Your task to perform on an android device: turn off improve location accuracy Image 0: 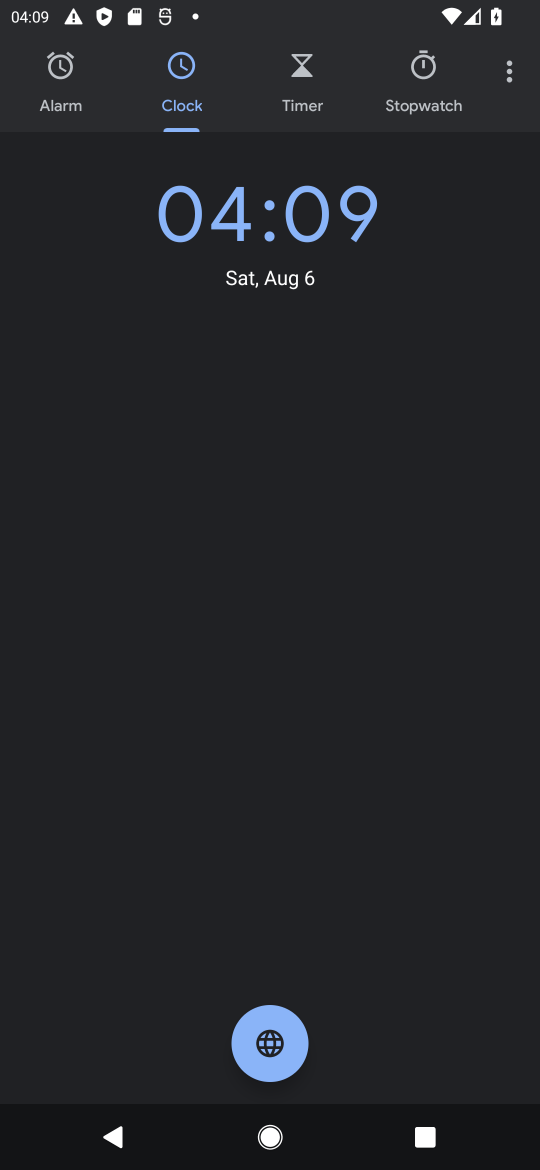
Step 0: press home button
Your task to perform on an android device: turn off improve location accuracy Image 1: 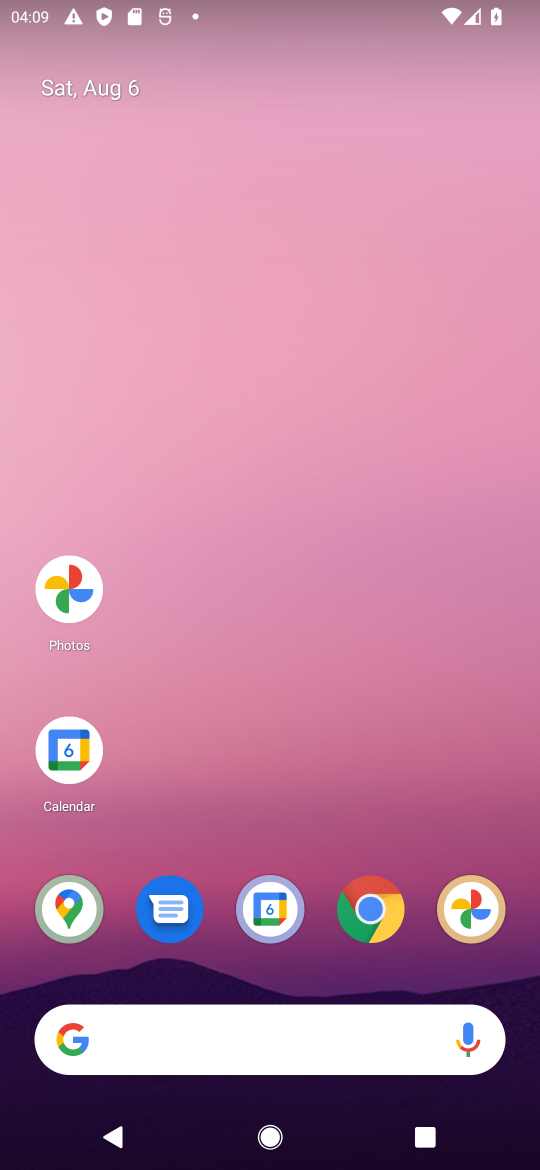
Step 1: drag from (223, 812) to (223, 8)
Your task to perform on an android device: turn off improve location accuracy Image 2: 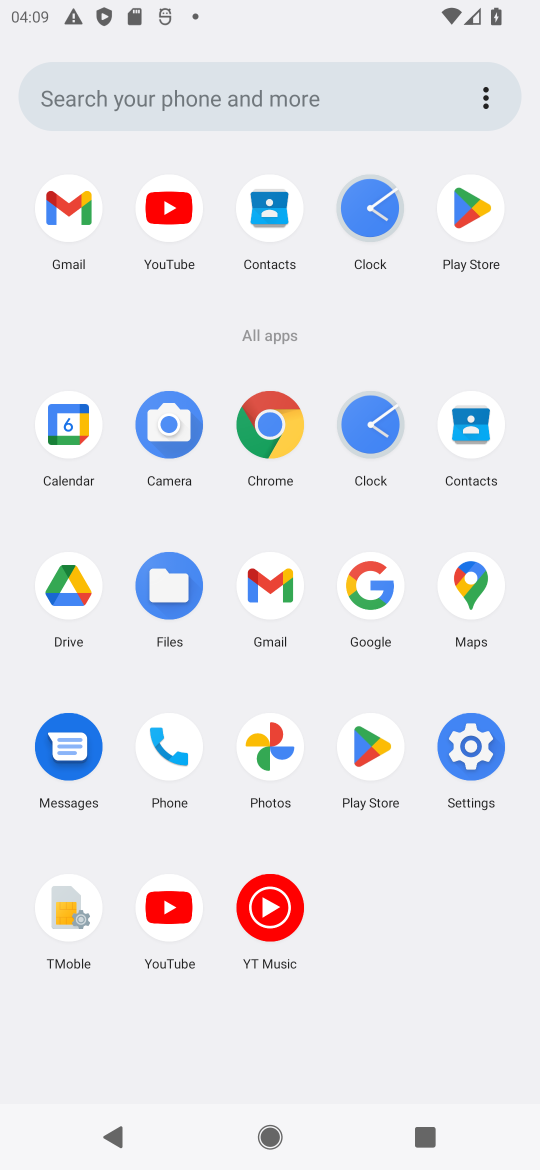
Step 2: click (470, 749)
Your task to perform on an android device: turn off improve location accuracy Image 3: 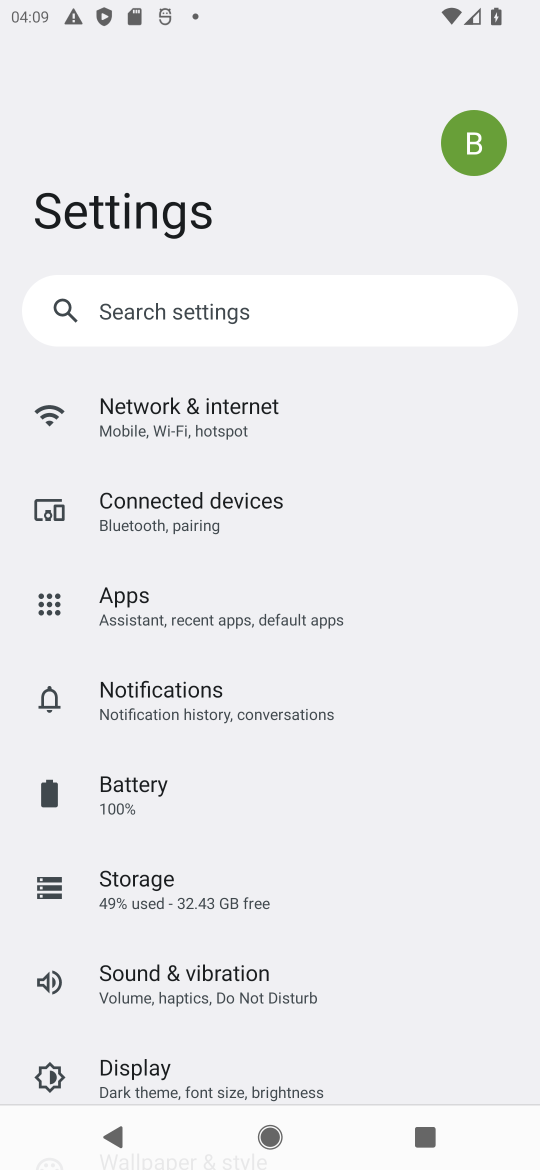
Step 3: drag from (388, 973) to (329, 397)
Your task to perform on an android device: turn off improve location accuracy Image 4: 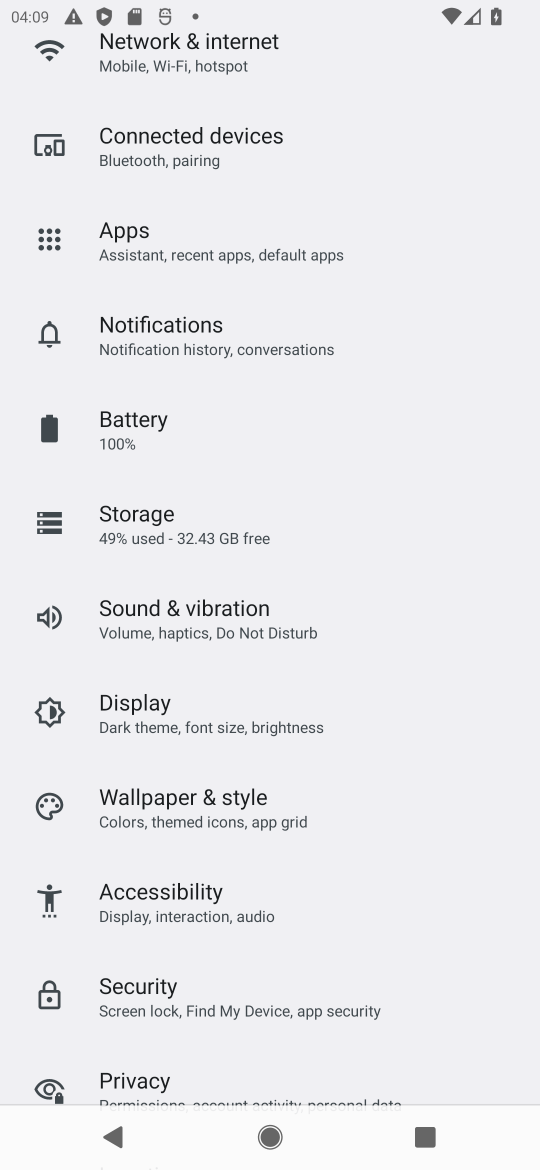
Step 4: drag from (405, 965) to (390, 432)
Your task to perform on an android device: turn off improve location accuracy Image 5: 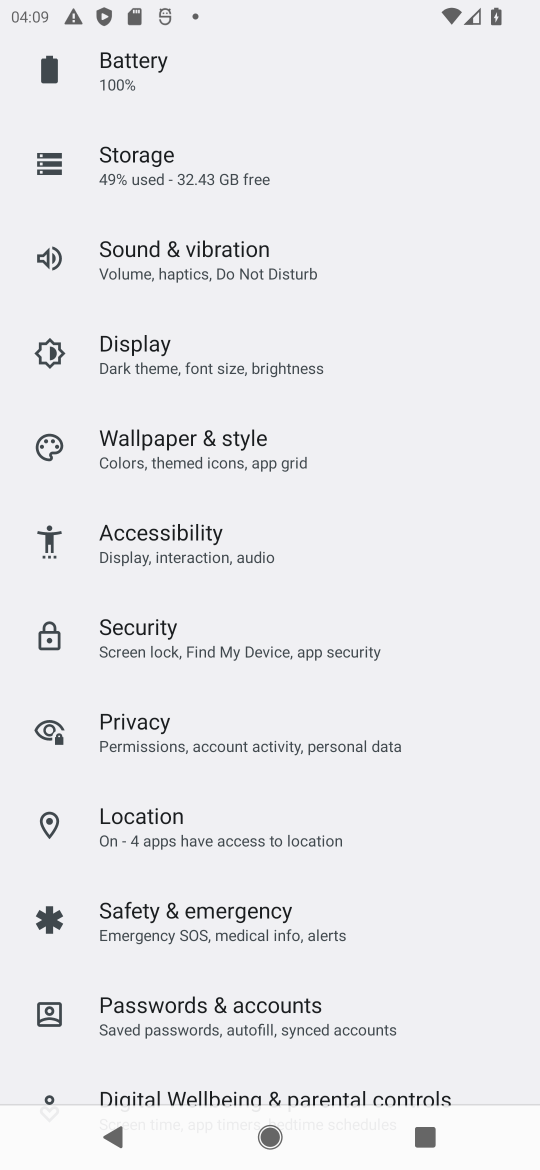
Step 5: click (163, 819)
Your task to perform on an android device: turn off improve location accuracy Image 6: 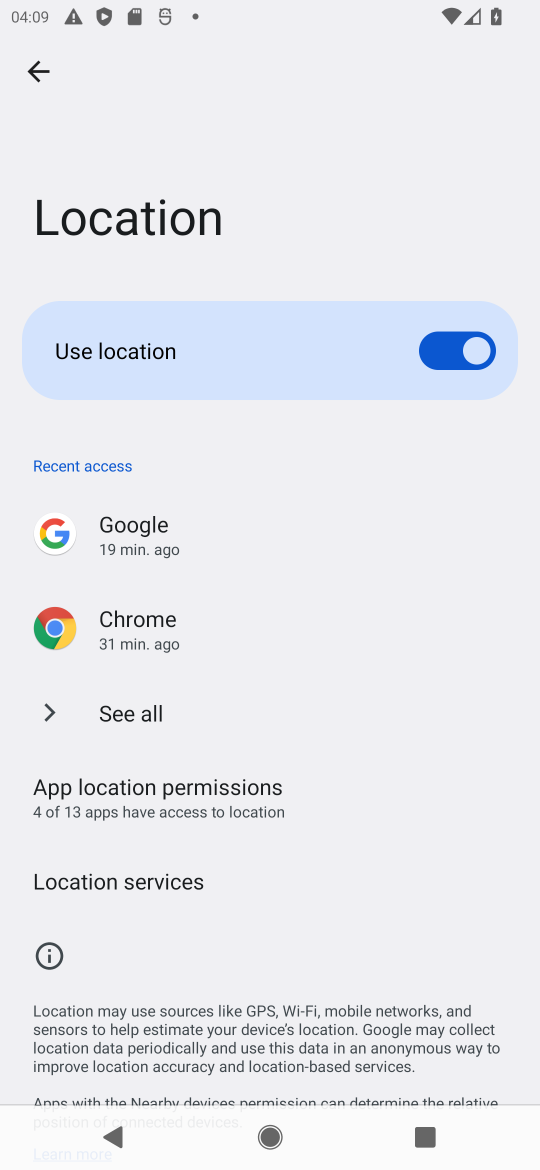
Step 6: click (130, 798)
Your task to perform on an android device: turn off improve location accuracy Image 7: 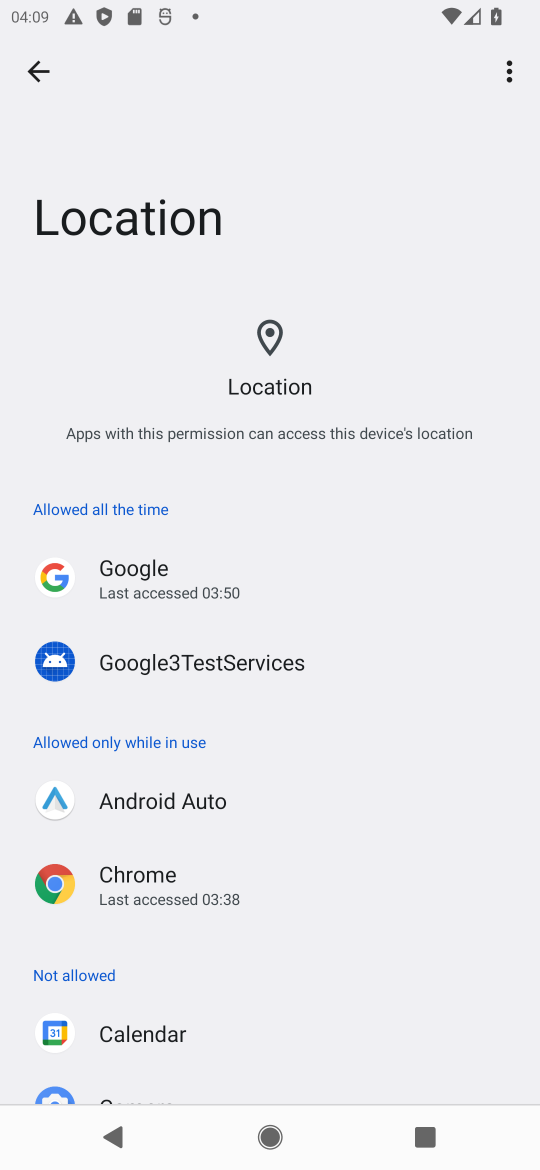
Step 7: drag from (421, 935) to (345, 382)
Your task to perform on an android device: turn off improve location accuracy Image 8: 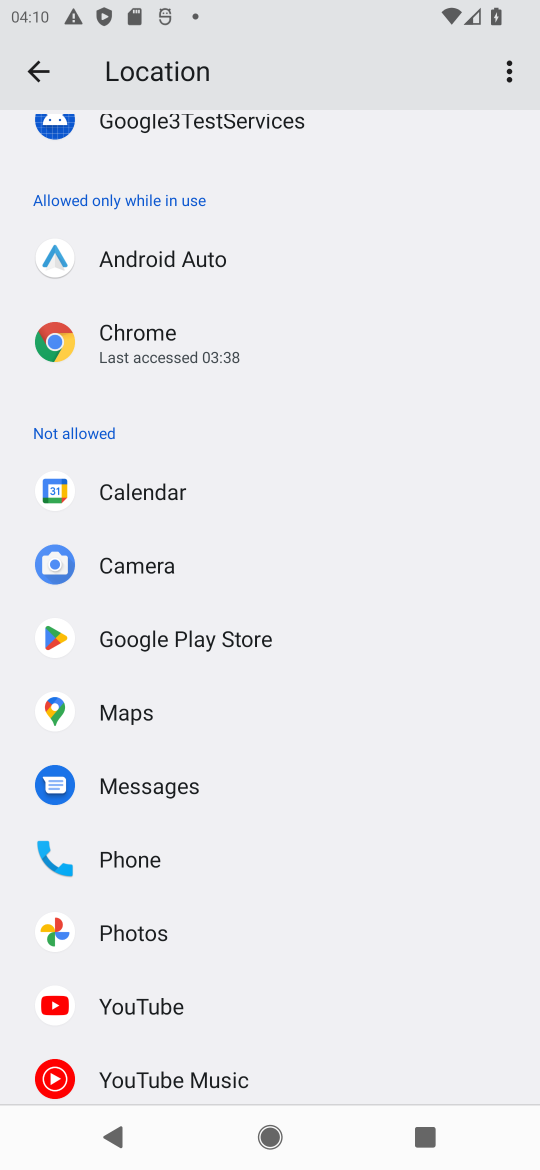
Step 8: click (35, 63)
Your task to perform on an android device: turn off improve location accuracy Image 9: 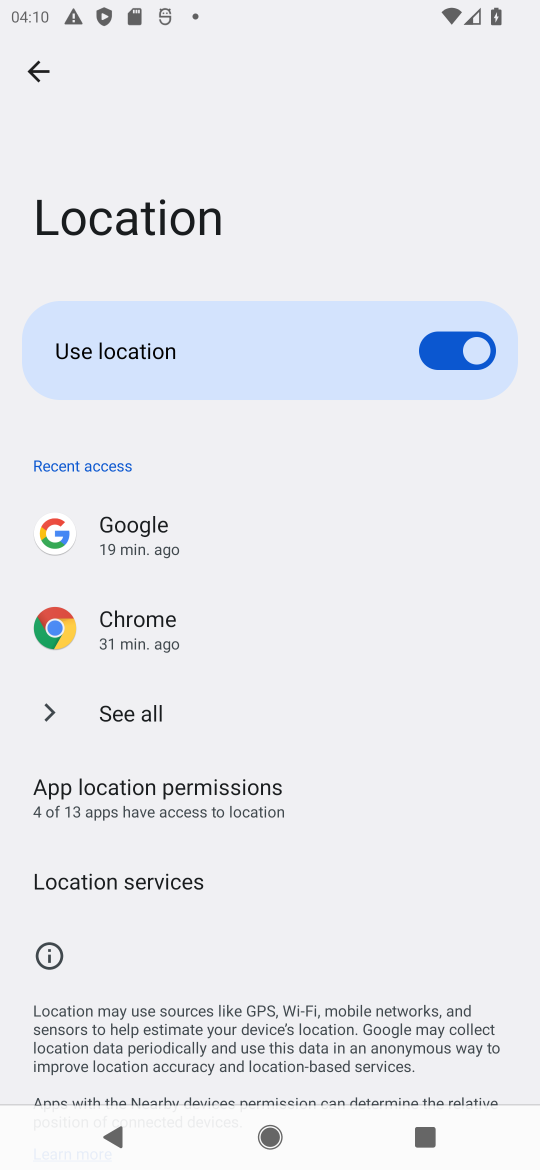
Step 9: click (111, 874)
Your task to perform on an android device: turn off improve location accuracy Image 10: 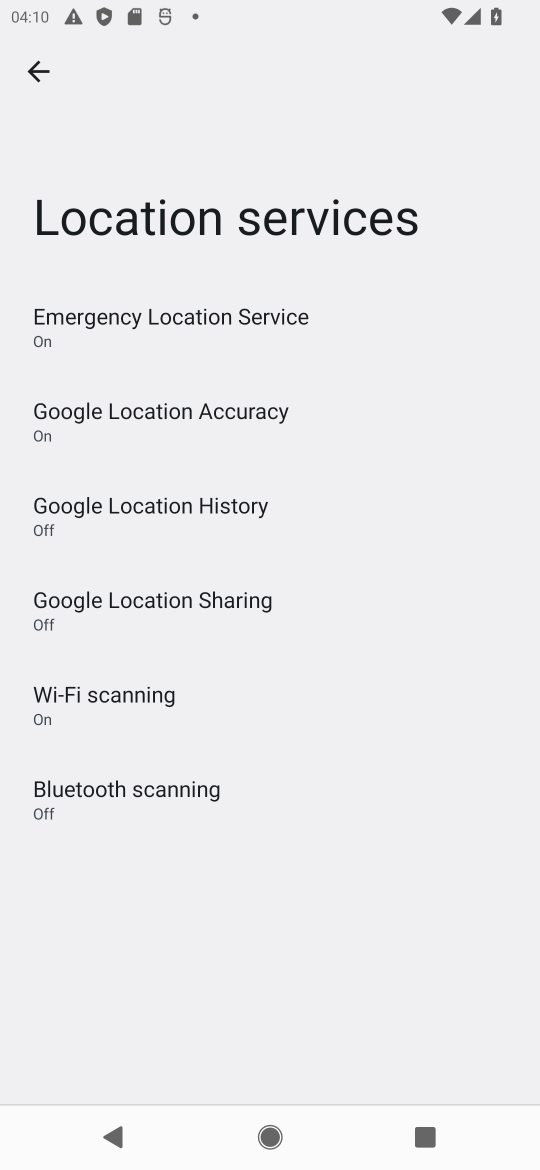
Step 10: click (176, 410)
Your task to perform on an android device: turn off improve location accuracy Image 11: 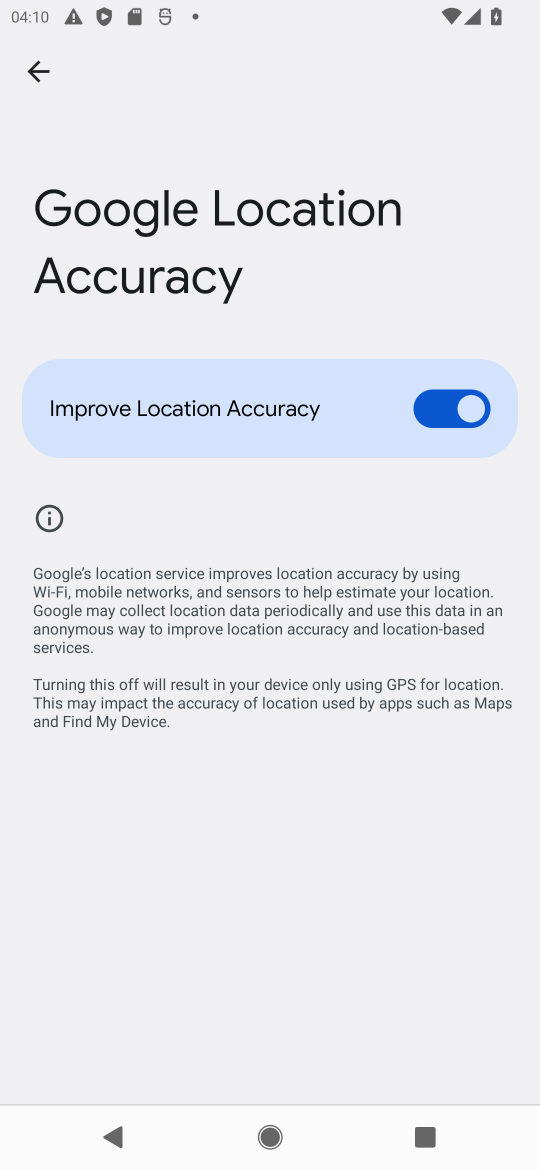
Step 11: click (431, 389)
Your task to perform on an android device: turn off improve location accuracy Image 12: 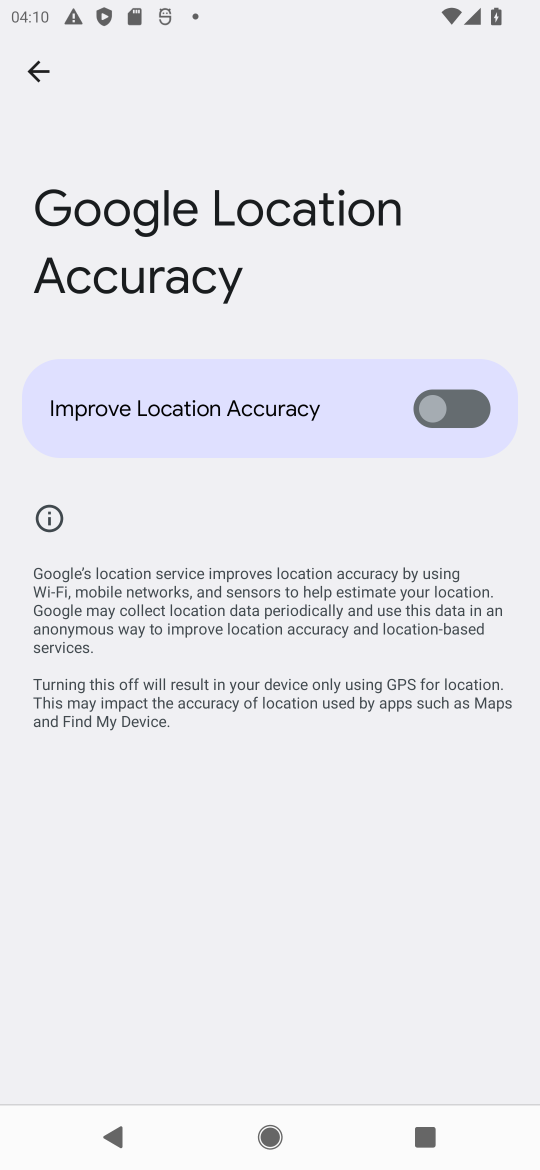
Step 12: task complete